Your task to perform on an android device: turn off location Image 0: 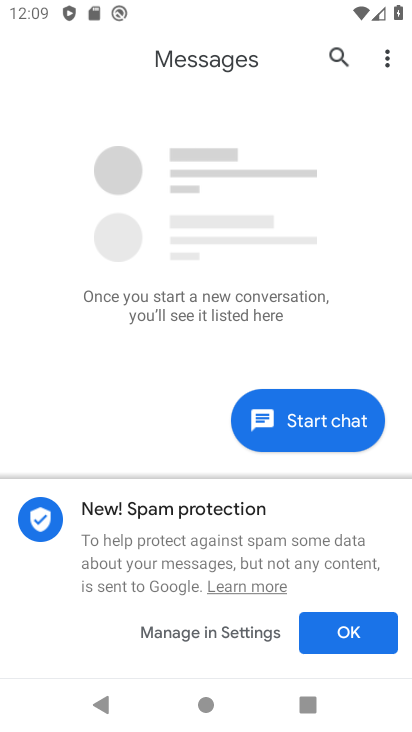
Step 0: press home button
Your task to perform on an android device: turn off location Image 1: 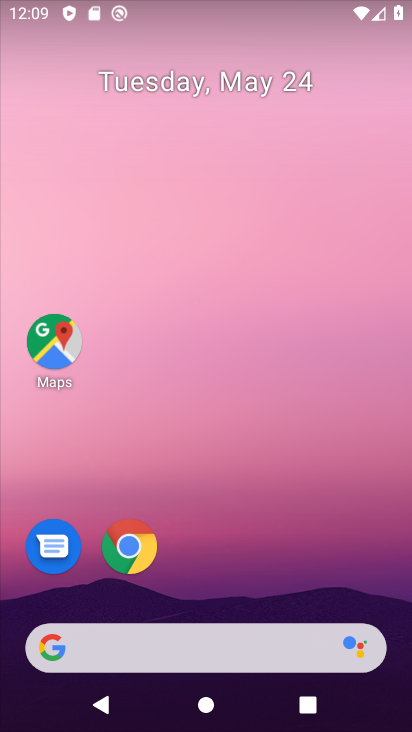
Step 1: drag from (321, 654) to (170, 60)
Your task to perform on an android device: turn off location Image 2: 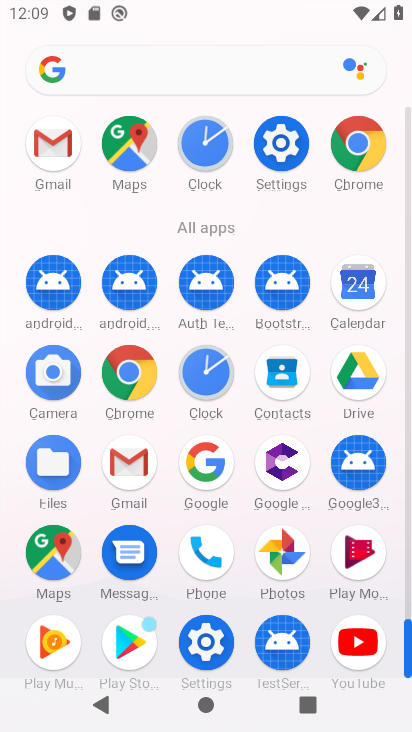
Step 2: click (271, 142)
Your task to perform on an android device: turn off location Image 3: 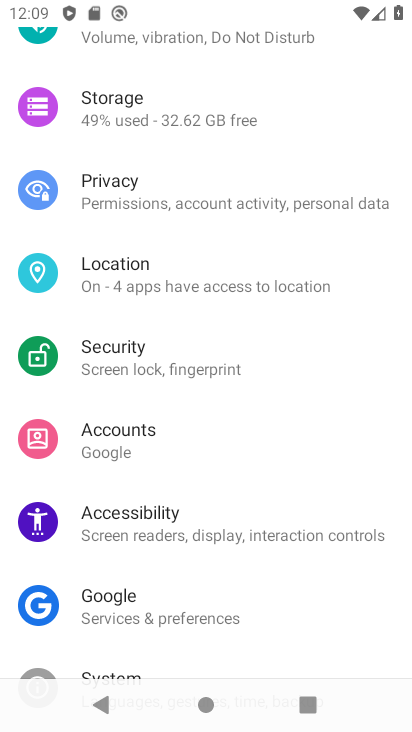
Step 3: click (182, 278)
Your task to perform on an android device: turn off location Image 4: 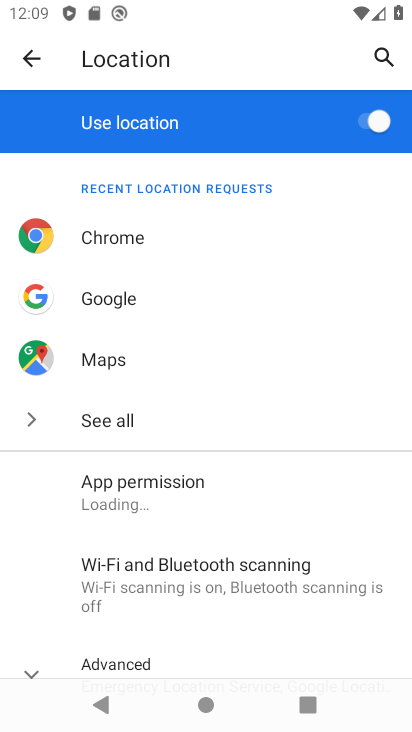
Step 4: click (363, 119)
Your task to perform on an android device: turn off location Image 5: 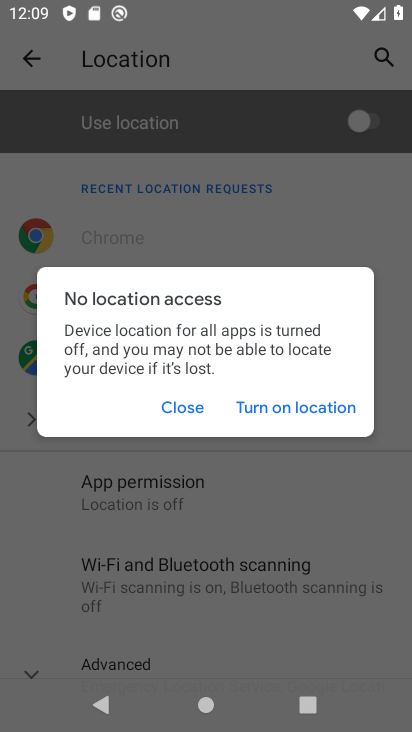
Step 5: click (182, 411)
Your task to perform on an android device: turn off location Image 6: 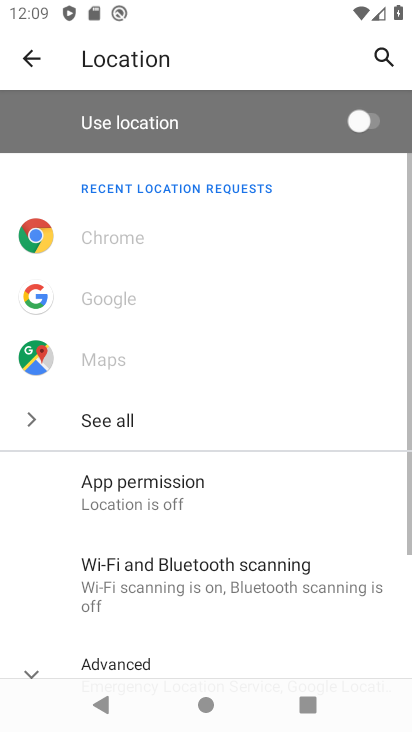
Step 6: task complete